Your task to perform on an android device: uninstall "Facebook" Image 0: 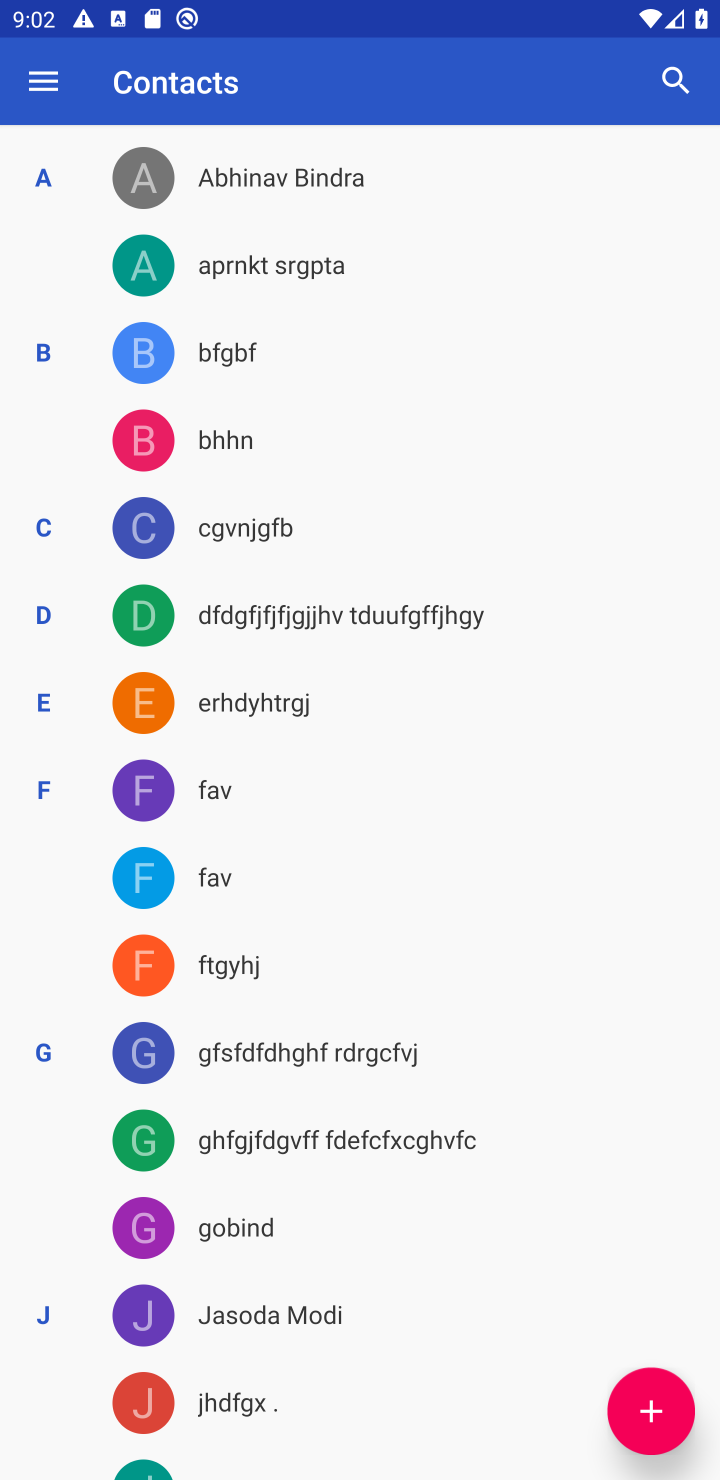
Step 0: press home button
Your task to perform on an android device: uninstall "Facebook" Image 1: 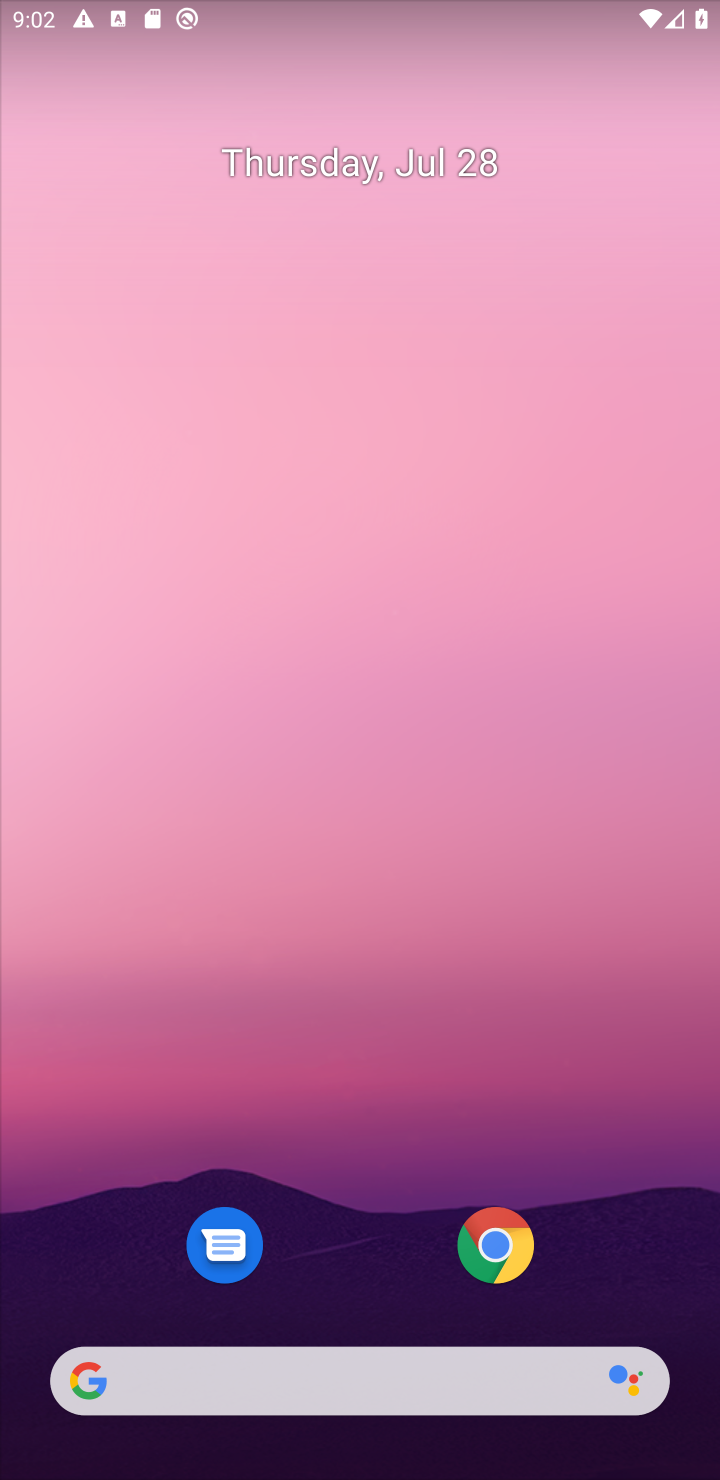
Step 1: drag from (358, 850) to (362, 144)
Your task to perform on an android device: uninstall "Facebook" Image 2: 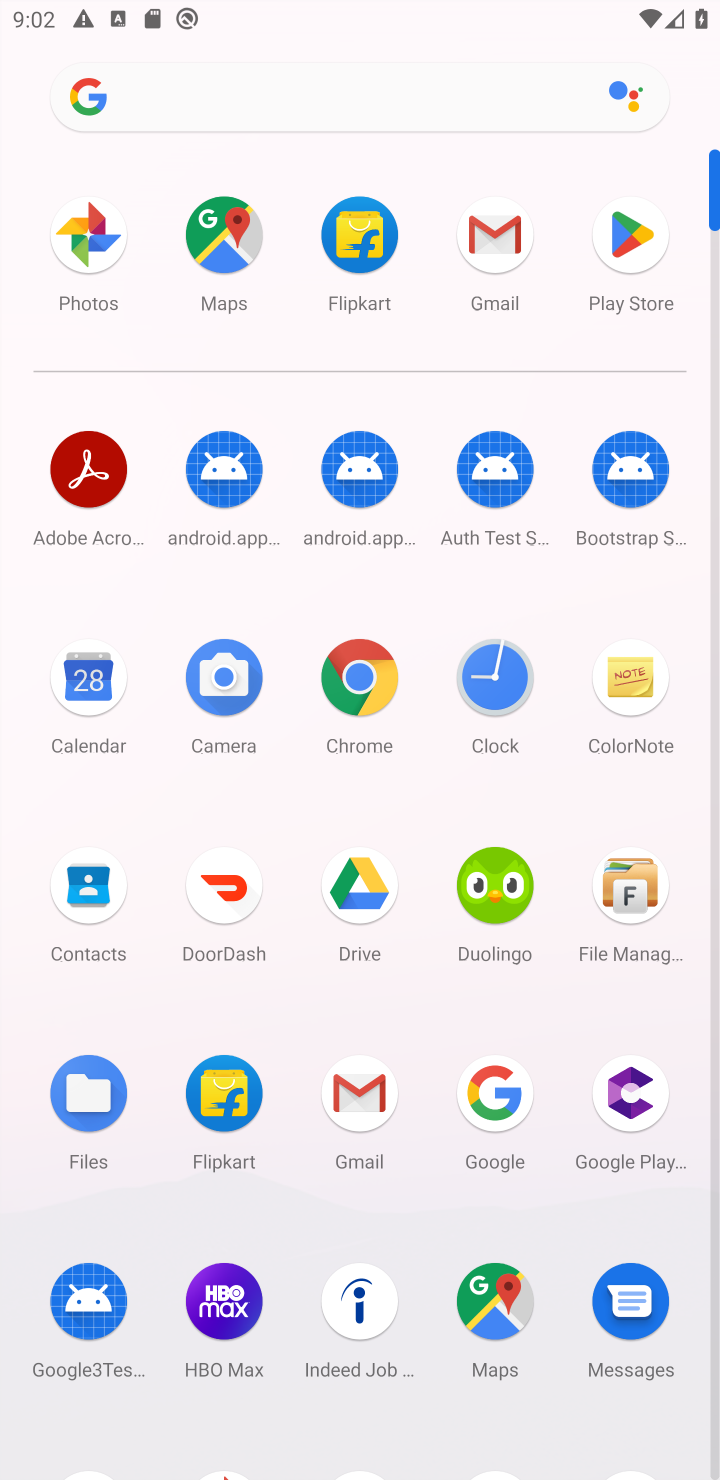
Step 2: click (627, 215)
Your task to perform on an android device: uninstall "Facebook" Image 3: 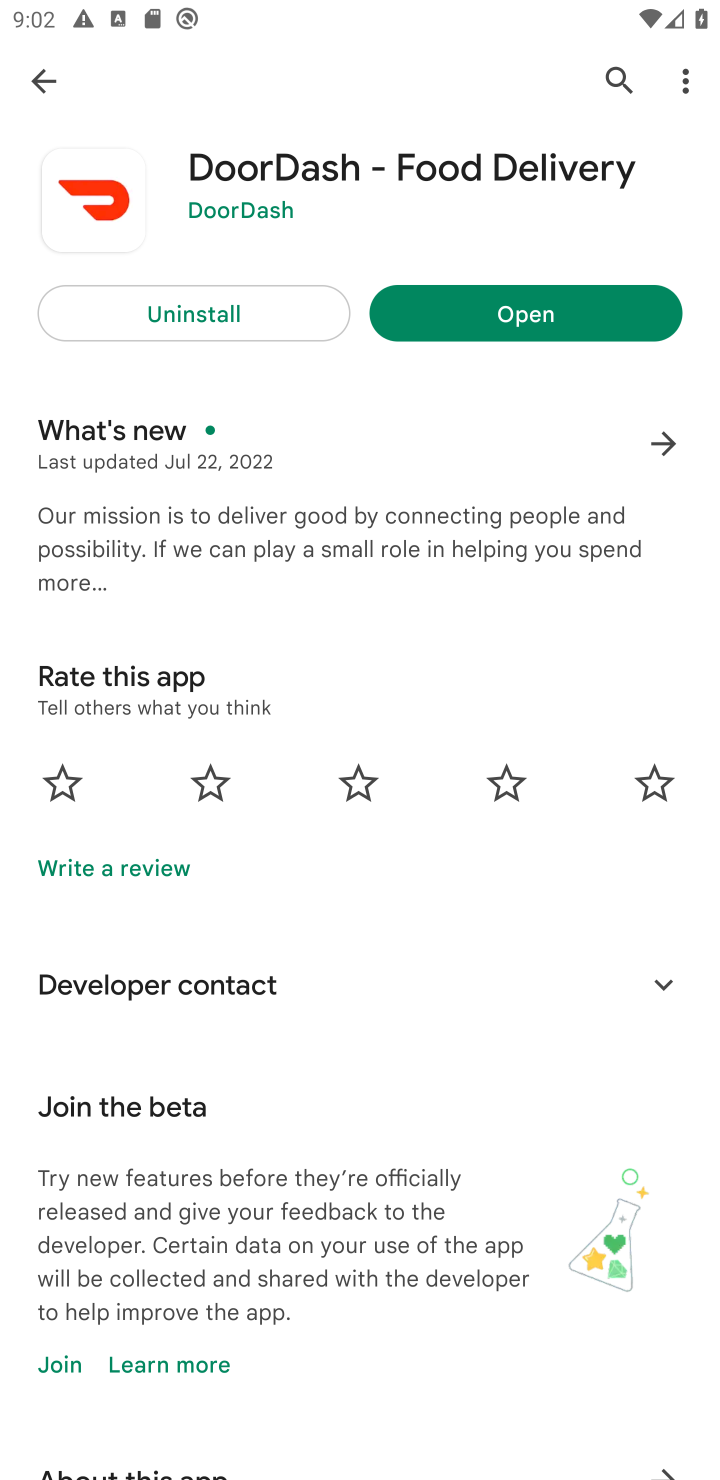
Step 3: click (611, 81)
Your task to perform on an android device: uninstall "Facebook" Image 4: 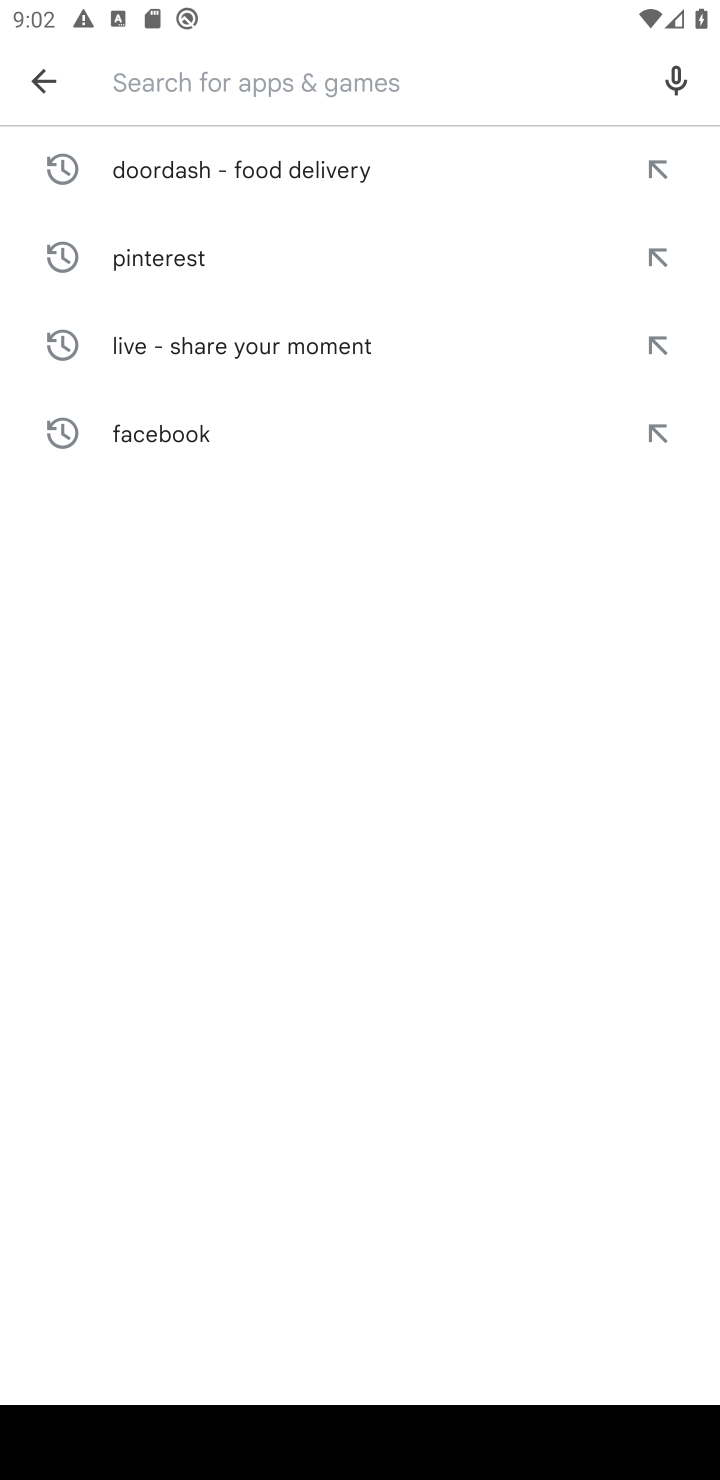
Step 4: type "Facebook"
Your task to perform on an android device: uninstall "Facebook" Image 5: 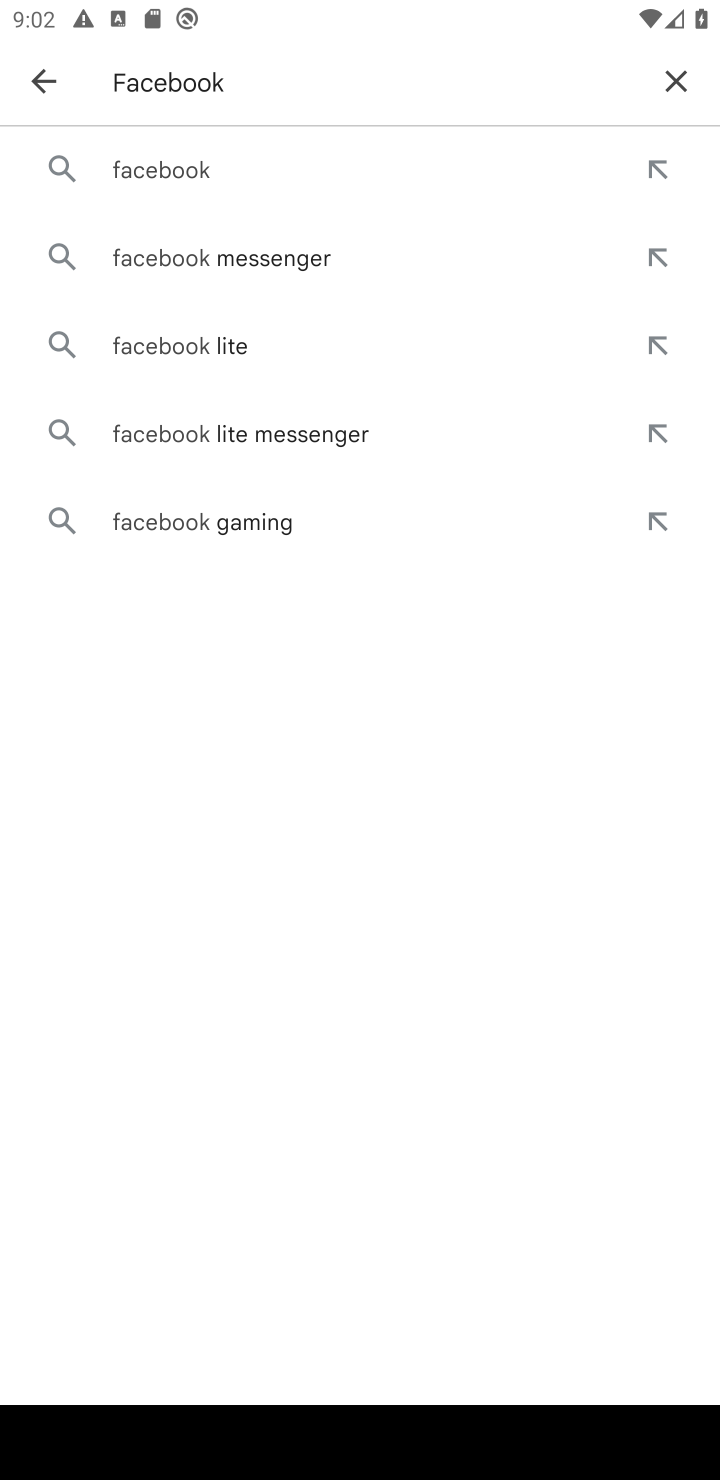
Step 5: click (201, 172)
Your task to perform on an android device: uninstall "Facebook" Image 6: 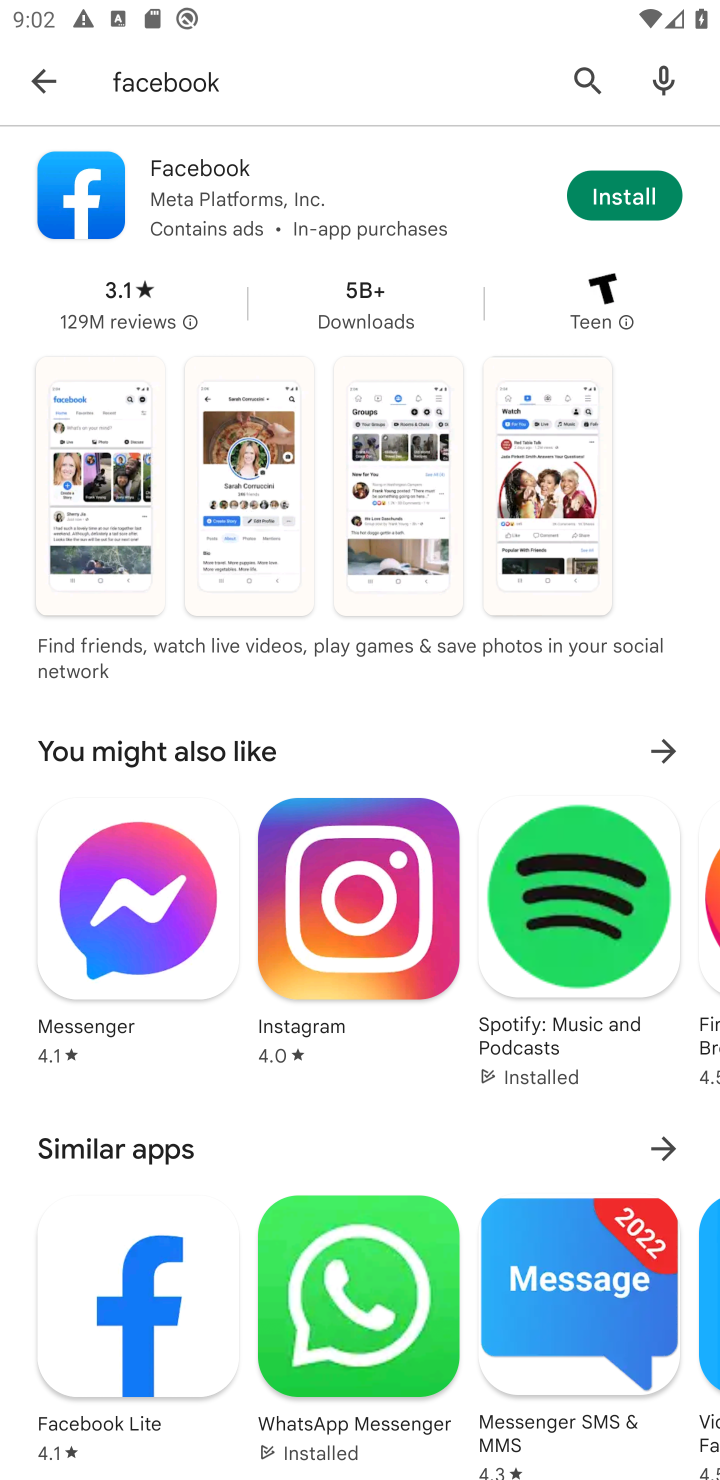
Step 6: click (261, 174)
Your task to perform on an android device: uninstall "Facebook" Image 7: 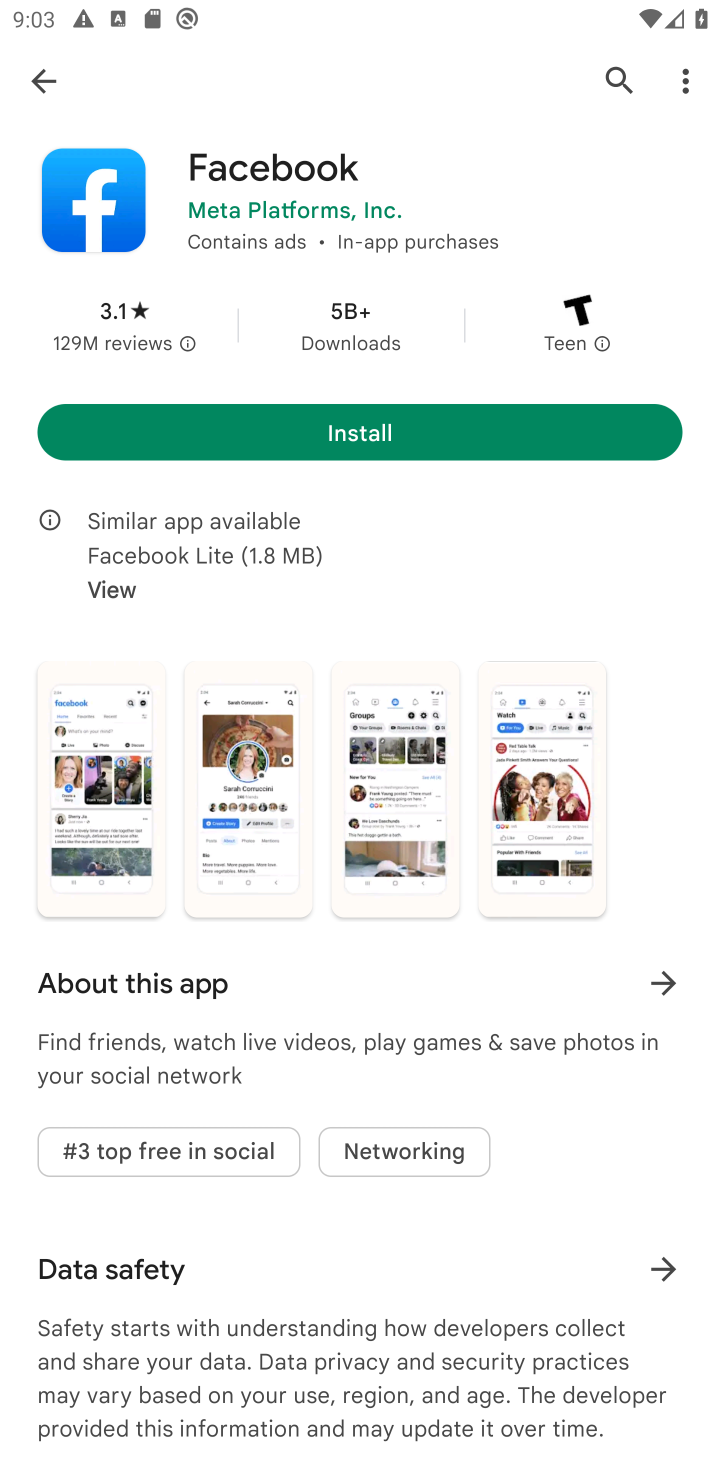
Step 7: task complete